Your task to perform on an android device: turn on the 12-hour format for clock Image 0: 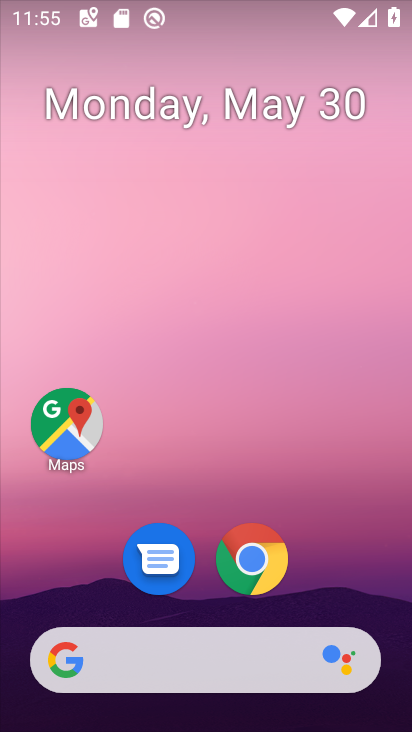
Step 0: drag from (334, 491) to (278, 80)
Your task to perform on an android device: turn on the 12-hour format for clock Image 1: 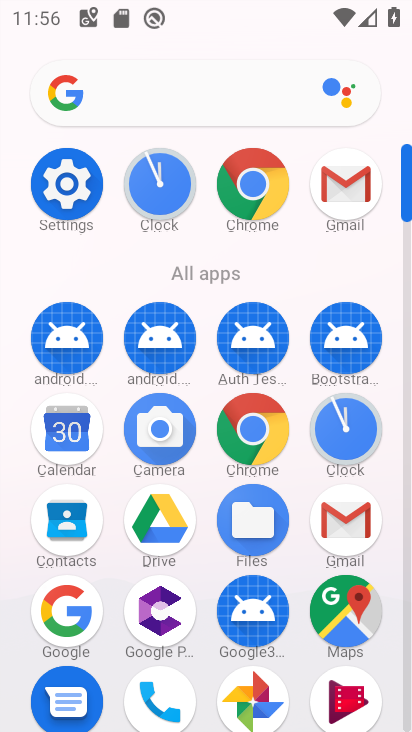
Step 1: click (159, 179)
Your task to perform on an android device: turn on the 12-hour format for clock Image 2: 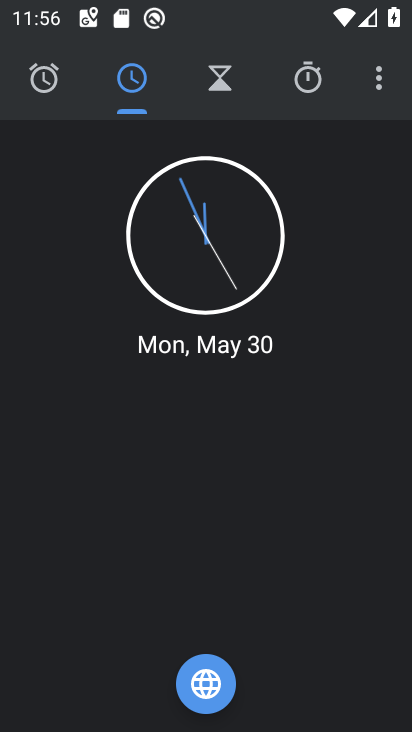
Step 2: click (390, 70)
Your task to perform on an android device: turn on the 12-hour format for clock Image 3: 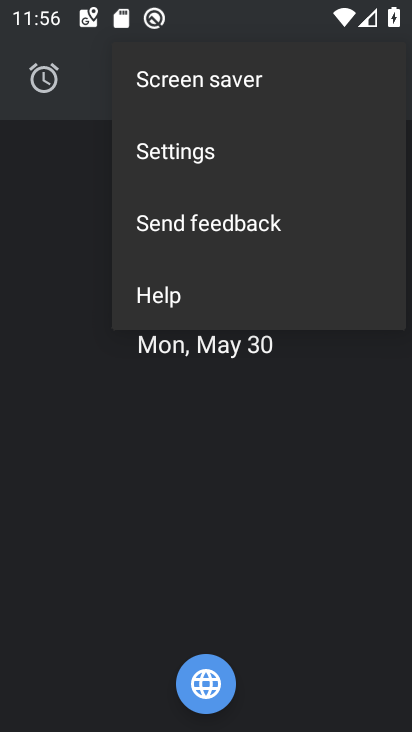
Step 3: click (300, 136)
Your task to perform on an android device: turn on the 12-hour format for clock Image 4: 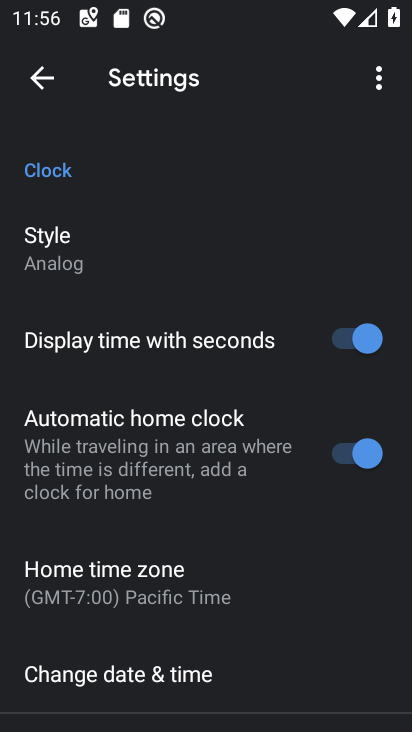
Step 4: drag from (231, 580) to (232, 287)
Your task to perform on an android device: turn on the 12-hour format for clock Image 5: 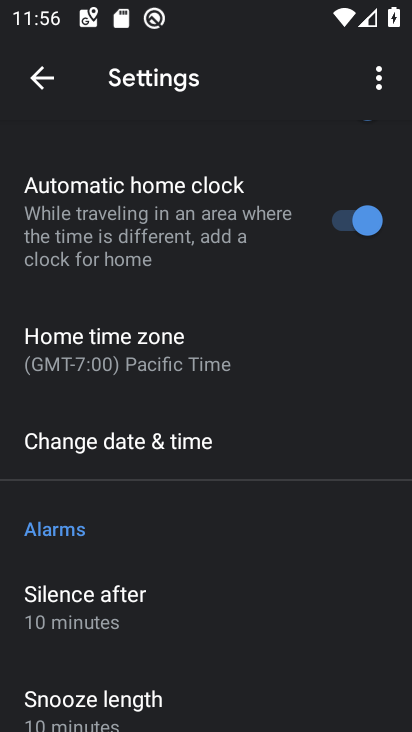
Step 5: click (253, 443)
Your task to perform on an android device: turn on the 12-hour format for clock Image 6: 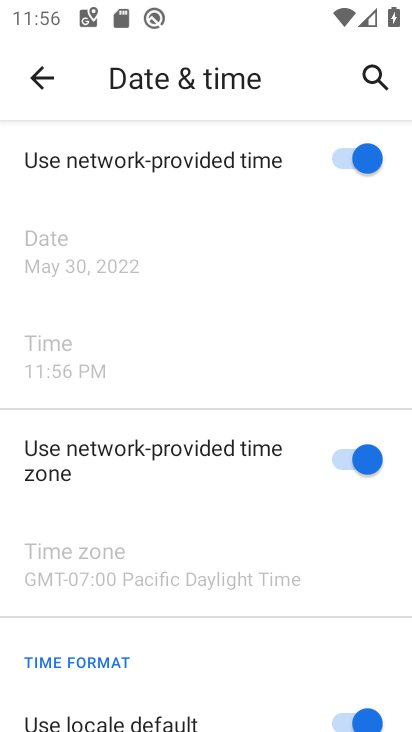
Step 6: task complete